Your task to perform on an android device: toggle pop-ups in chrome Image 0: 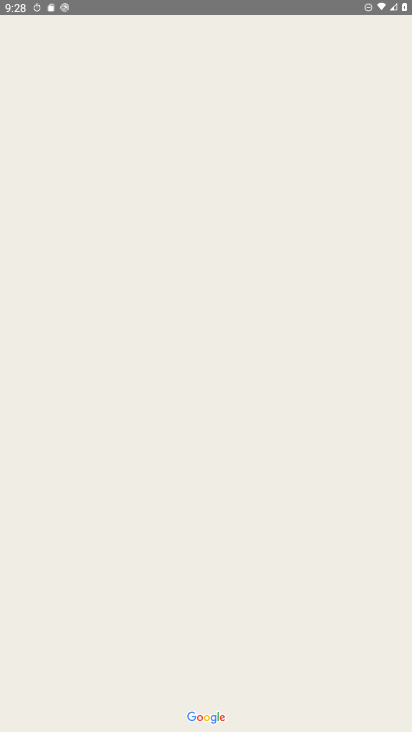
Step 0: press home button
Your task to perform on an android device: toggle pop-ups in chrome Image 1: 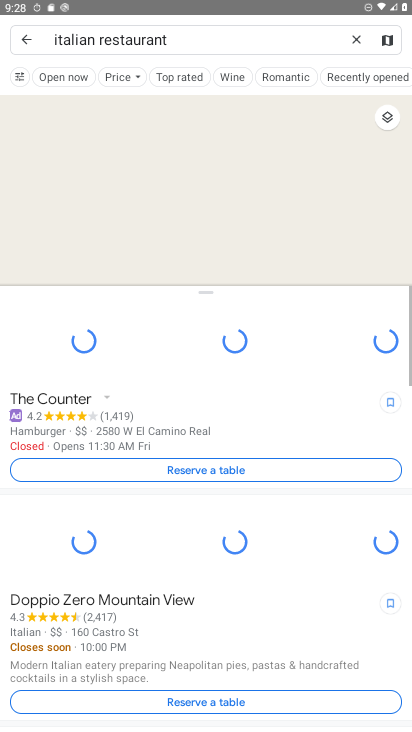
Step 1: drag from (395, 682) to (316, 72)
Your task to perform on an android device: toggle pop-ups in chrome Image 2: 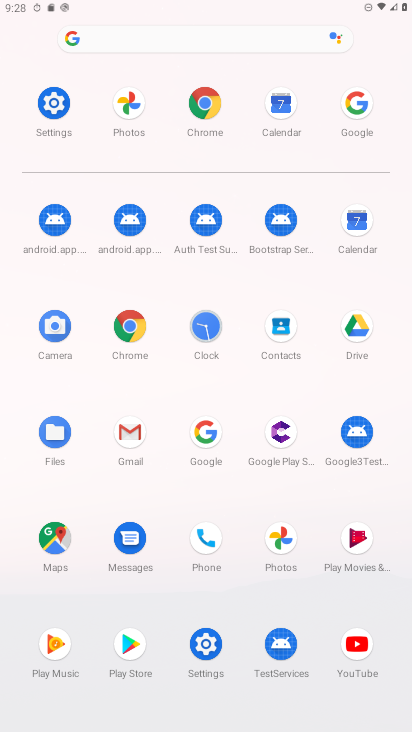
Step 2: click (210, 164)
Your task to perform on an android device: toggle pop-ups in chrome Image 3: 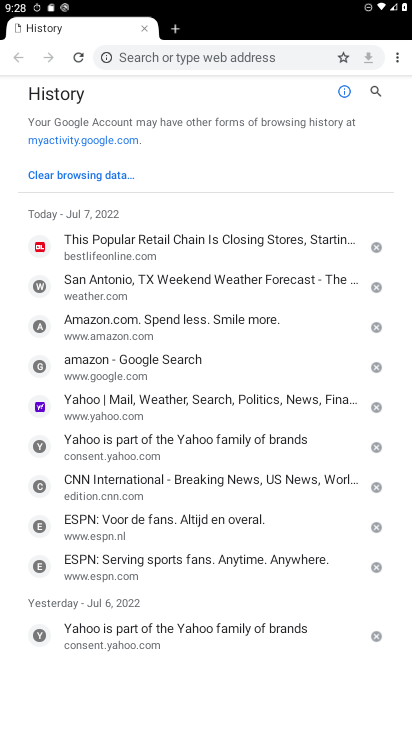
Step 3: click (395, 52)
Your task to perform on an android device: toggle pop-ups in chrome Image 4: 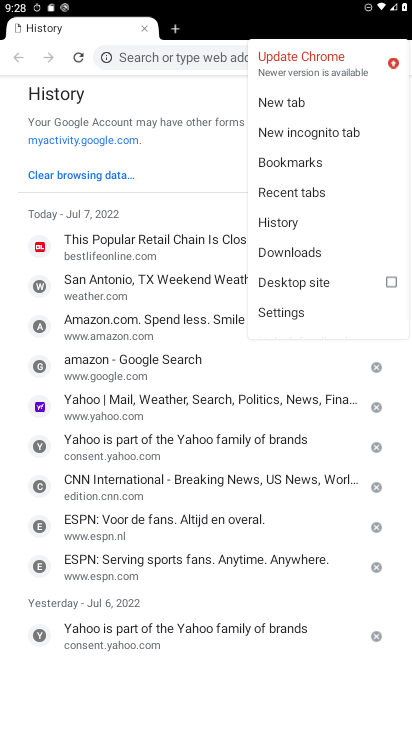
Step 4: click (276, 316)
Your task to perform on an android device: toggle pop-ups in chrome Image 5: 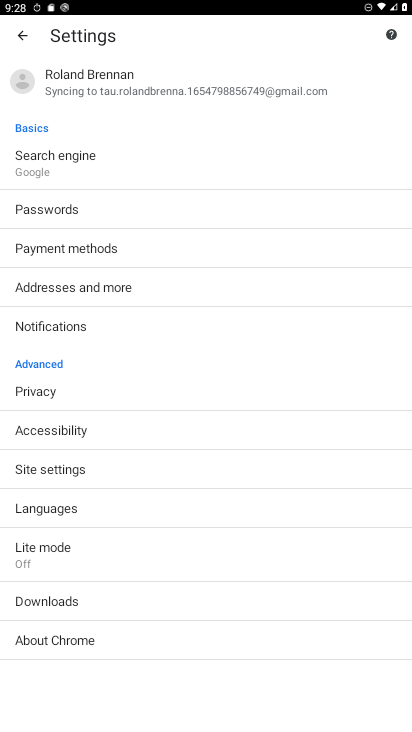
Step 5: click (43, 492)
Your task to perform on an android device: toggle pop-ups in chrome Image 6: 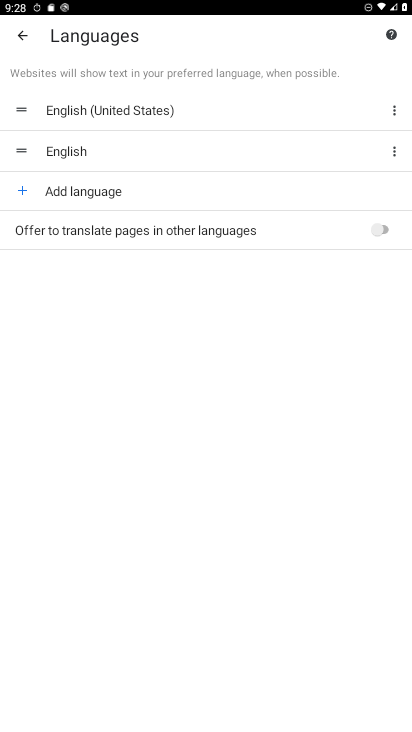
Step 6: press back button
Your task to perform on an android device: toggle pop-ups in chrome Image 7: 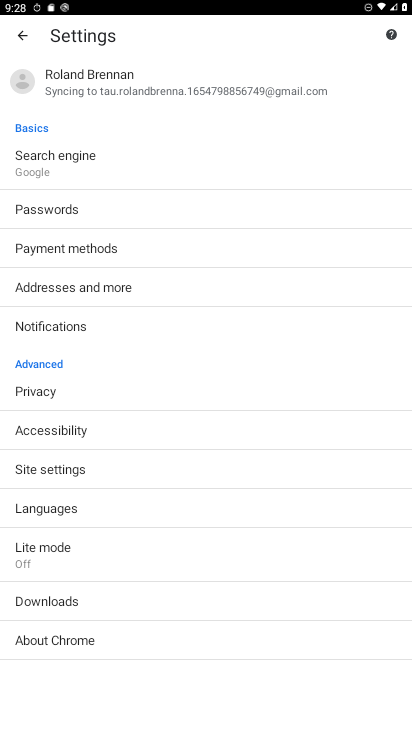
Step 7: click (63, 467)
Your task to perform on an android device: toggle pop-ups in chrome Image 8: 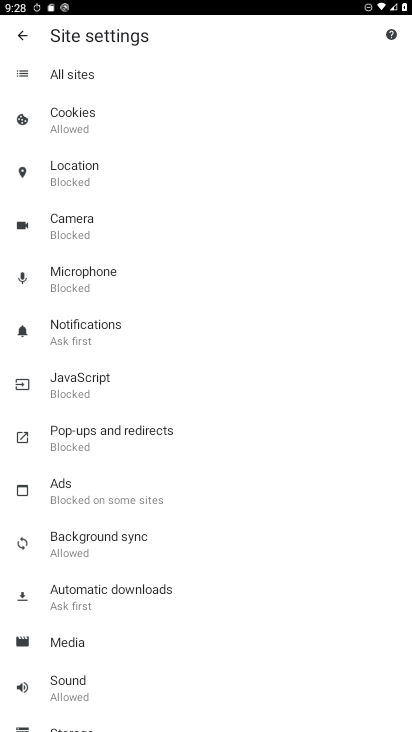
Step 8: click (125, 440)
Your task to perform on an android device: toggle pop-ups in chrome Image 9: 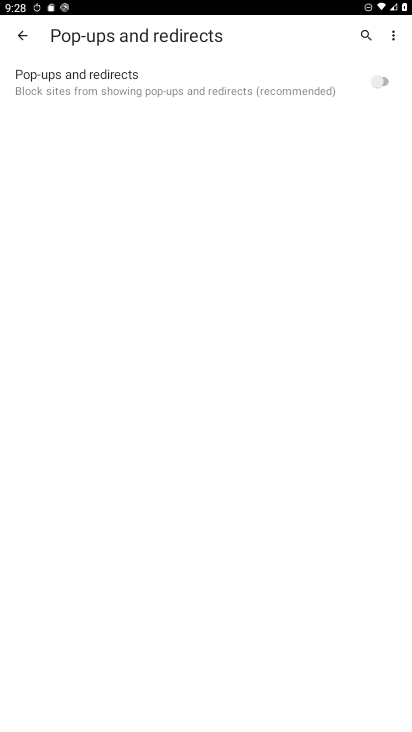
Step 9: click (389, 59)
Your task to perform on an android device: toggle pop-ups in chrome Image 10: 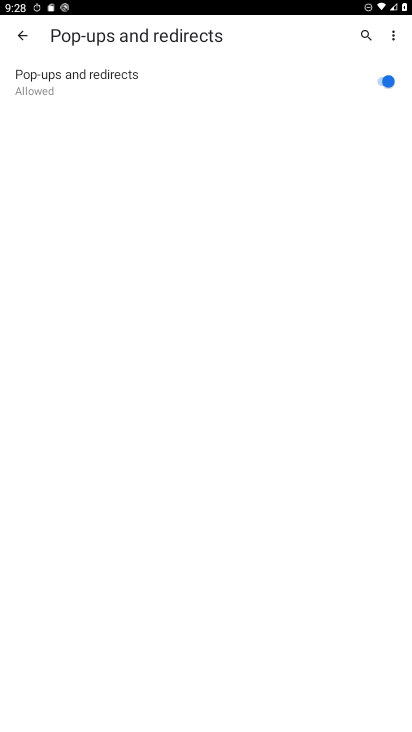
Step 10: task complete